Your task to perform on an android device: What's on Reddit this week Image 0: 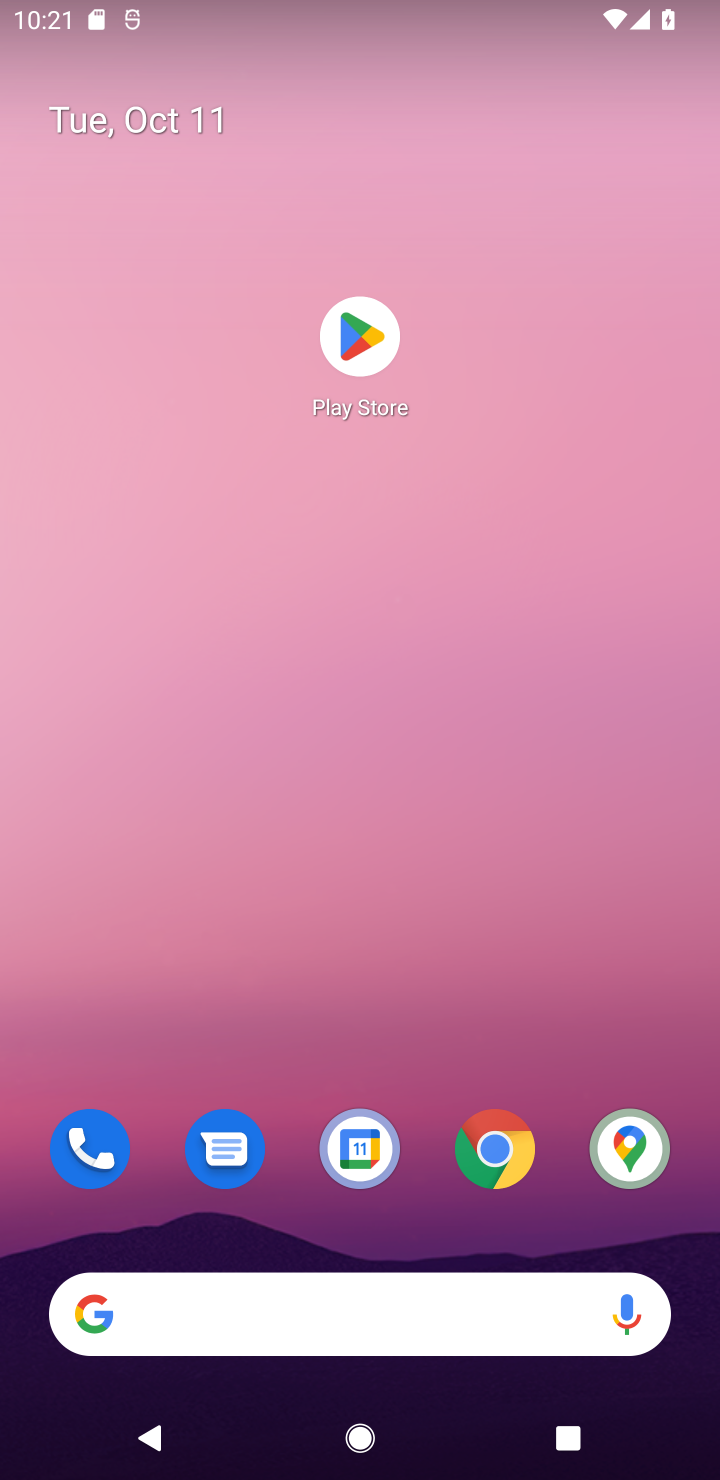
Step 0: click (348, 1333)
Your task to perform on an android device: What's on Reddit this week Image 1: 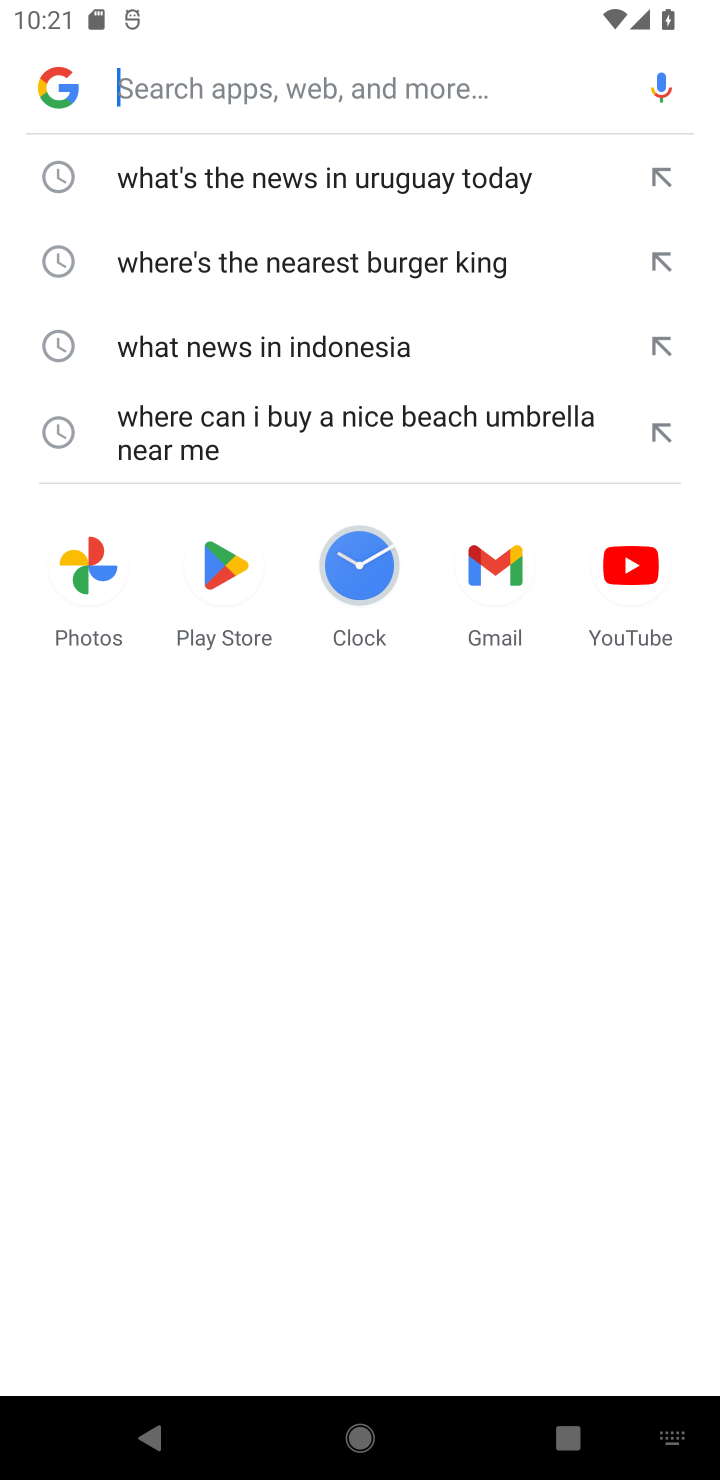
Step 1: type "What's on Reddit this week"
Your task to perform on an android device: What's on Reddit this week Image 2: 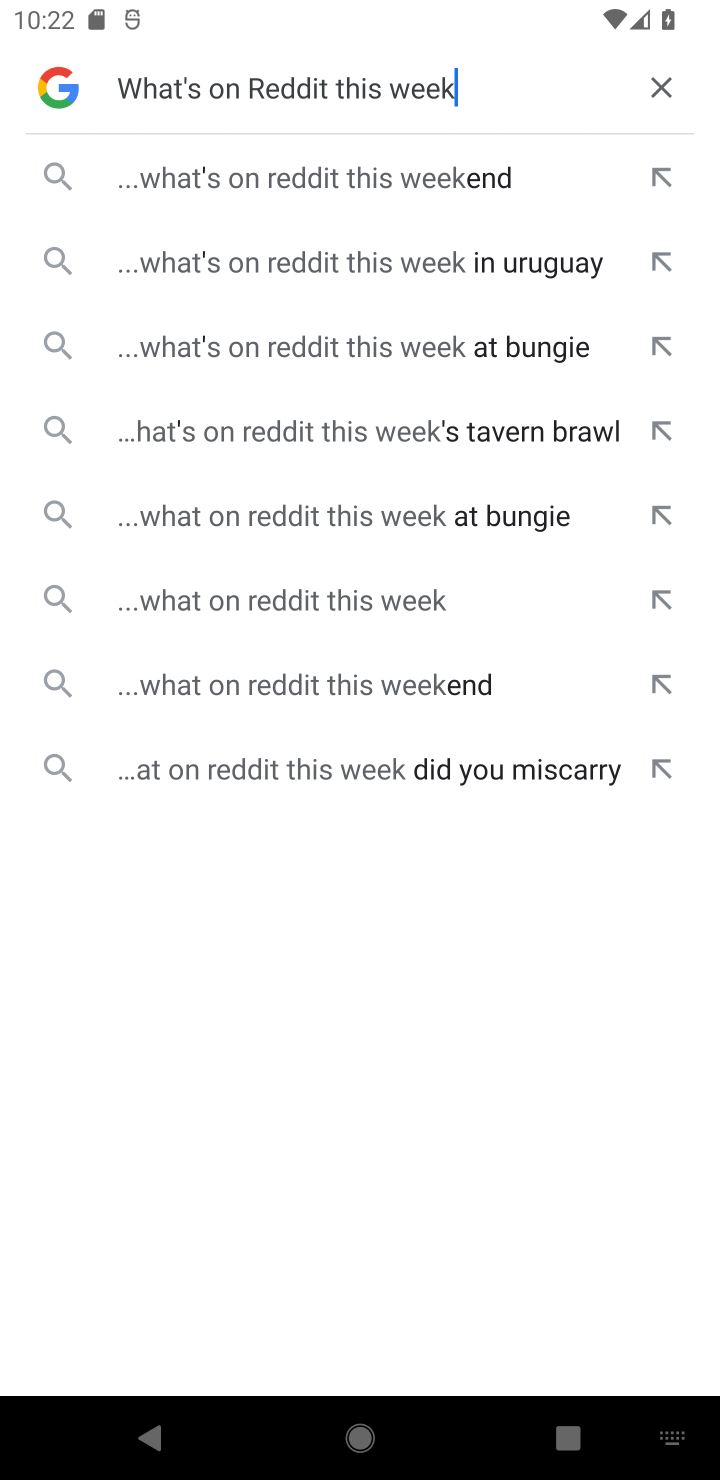
Step 2: click (414, 608)
Your task to perform on an android device: What's on Reddit this week Image 3: 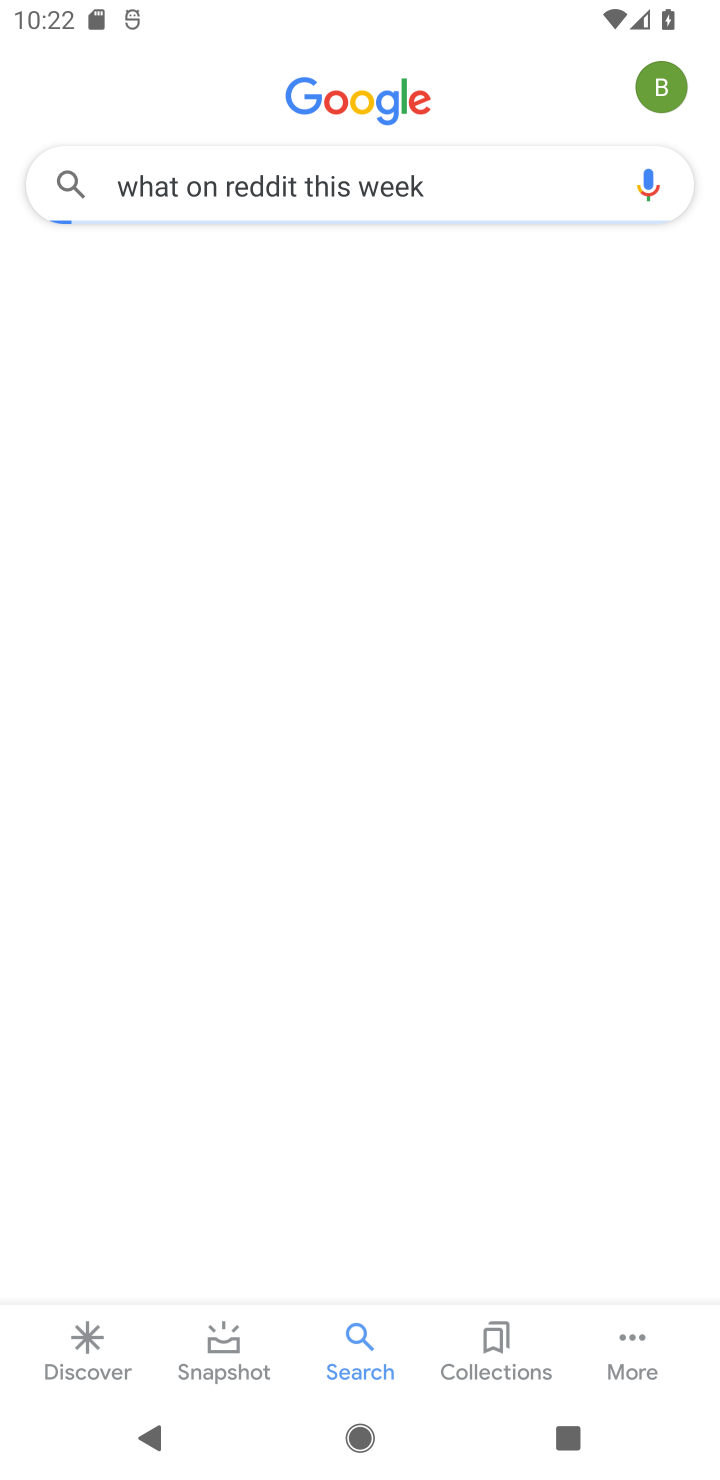
Step 3: click (341, 608)
Your task to perform on an android device: What's on Reddit this week Image 4: 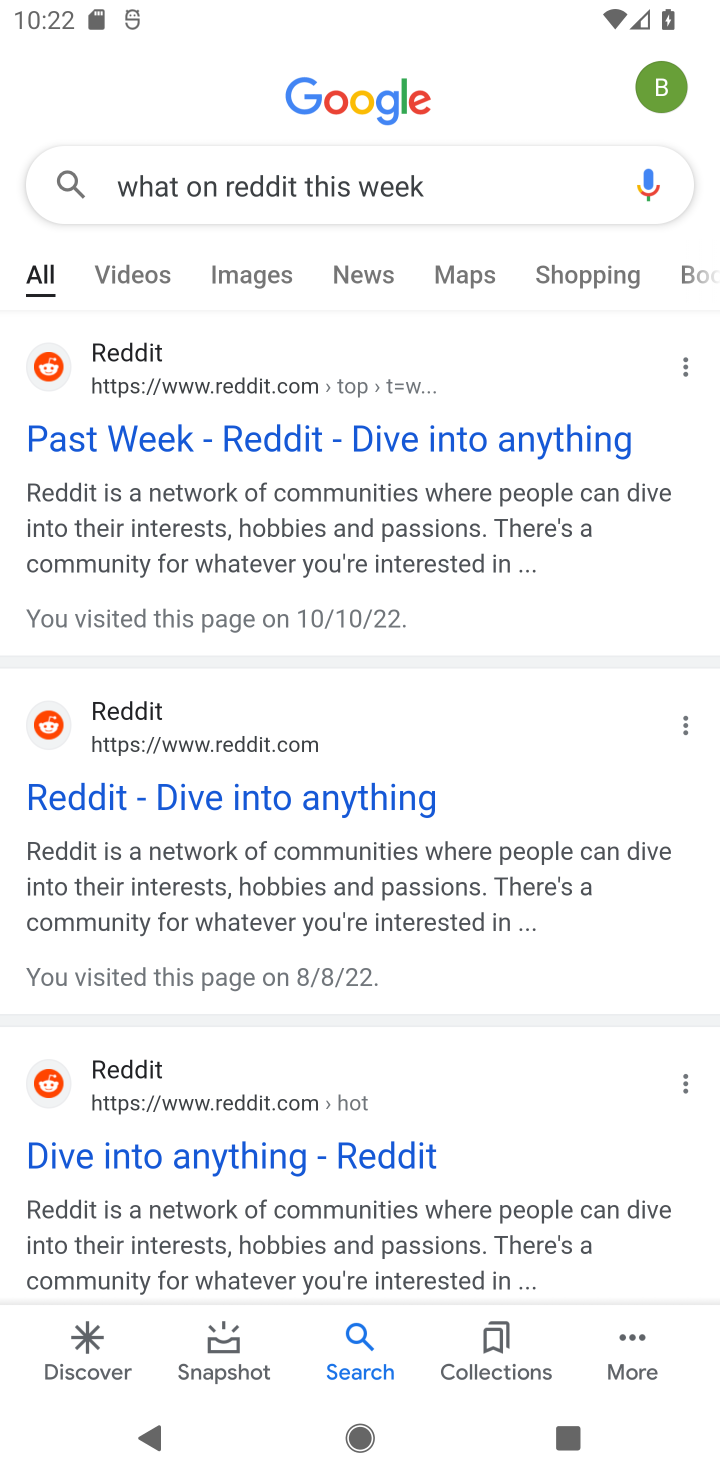
Step 4: click (450, 473)
Your task to perform on an android device: What's on Reddit this week Image 5: 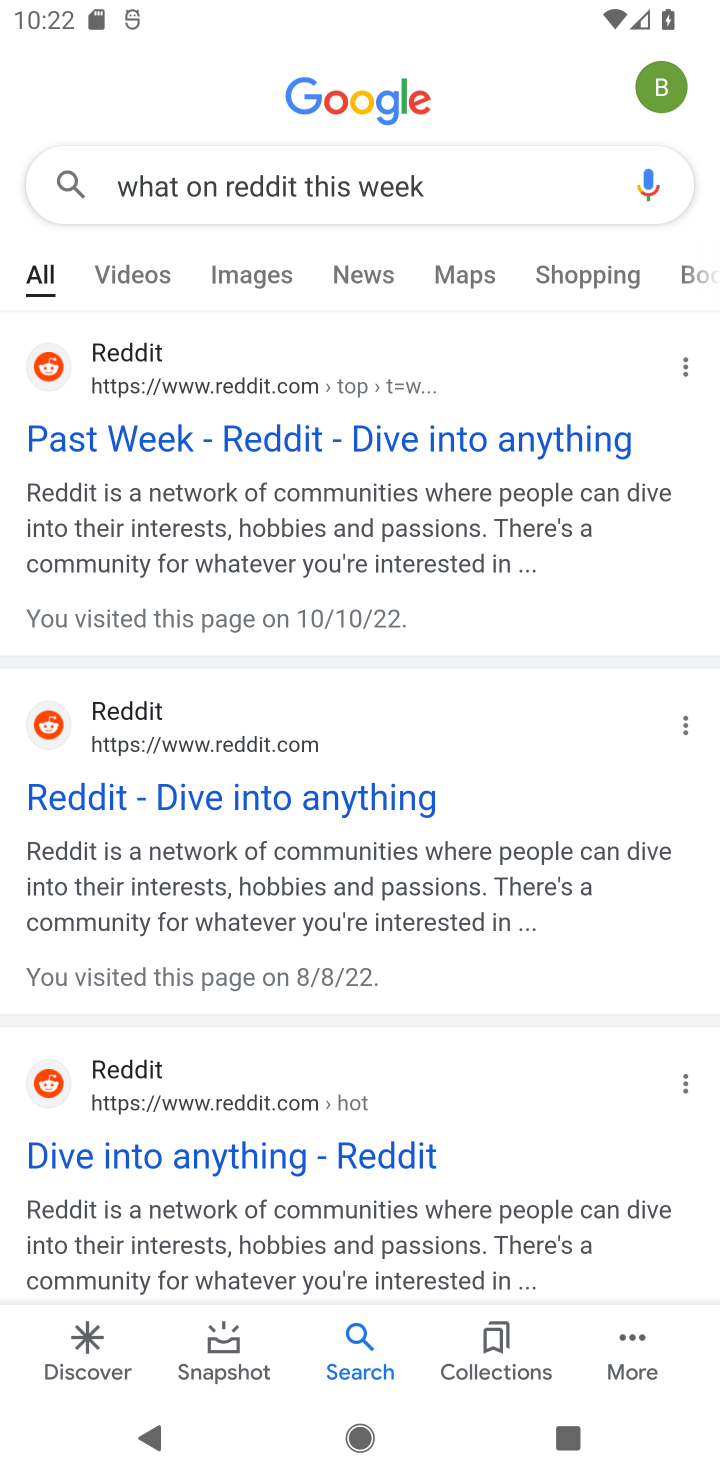
Step 5: task complete